Your task to perform on an android device: Open location settings Image 0: 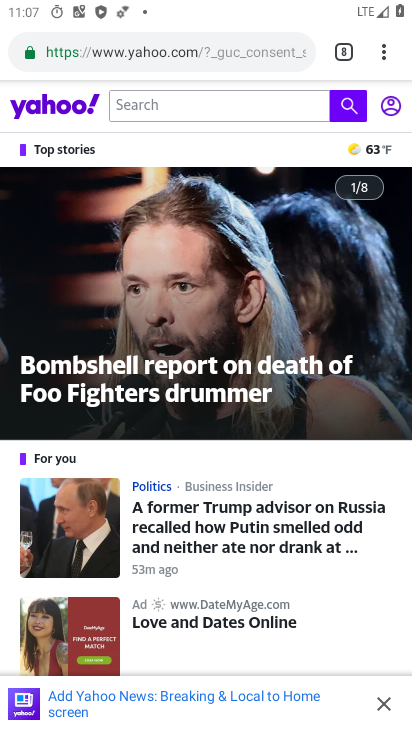
Step 0: press home button
Your task to perform on an android device: Open location settings Image 1: 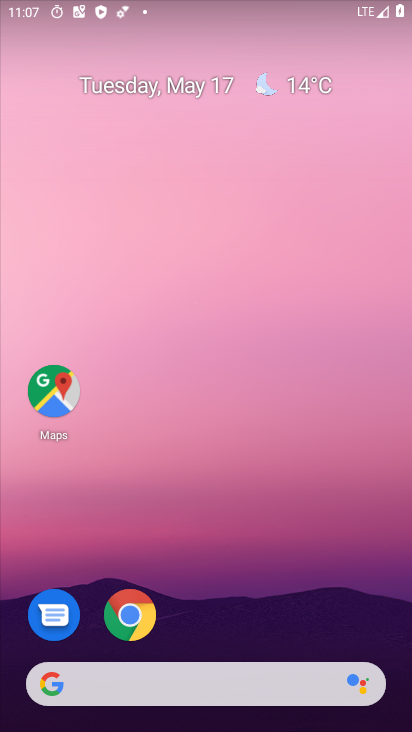
Step 1: drag from (190, 670) to (292, 94)
Your task to perform on an android device: Open location settings Image 2: 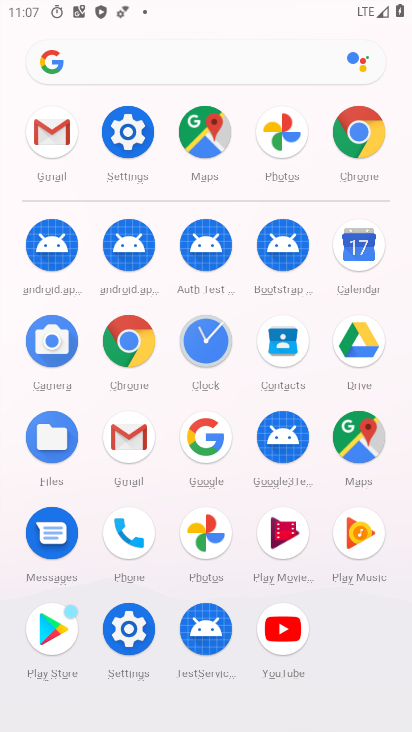
Step 2: click (113, 140)
Your task to perform on an android device: Open location settings Image 3: 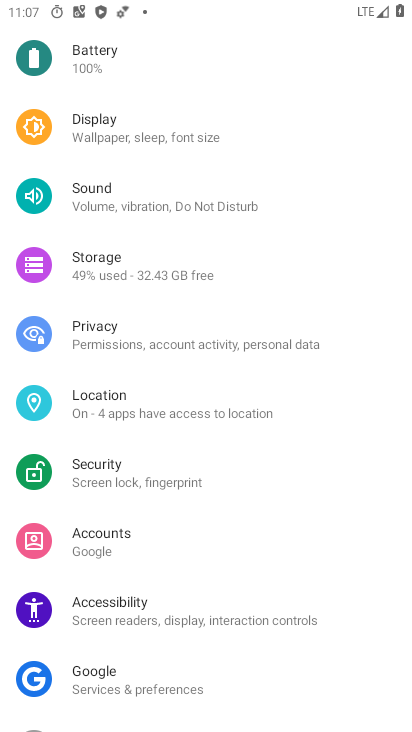
Step 3: click (82, 403)
Your task to perform on an android device: Open location settings Image 4: 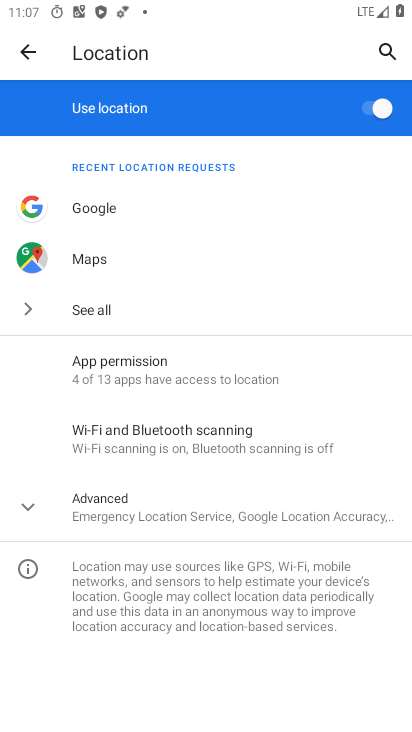
Step 4: click (103, 495)
Your task to perform on an android device: Open location settings Image 5: 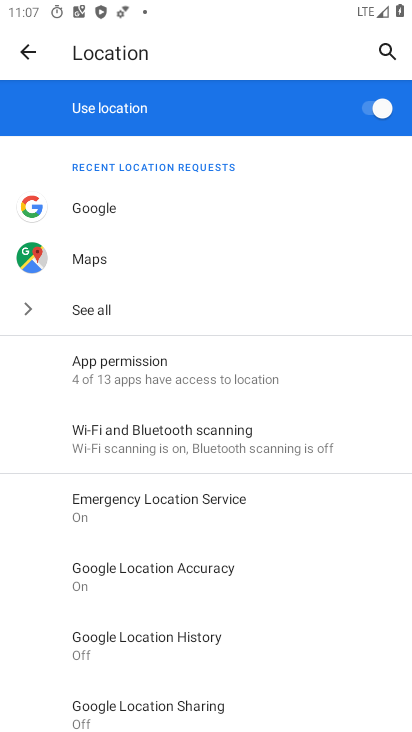
Step 5: task complete